Your task to perform on an android device: open the mobile data screen to see how much data has been used Image 0: 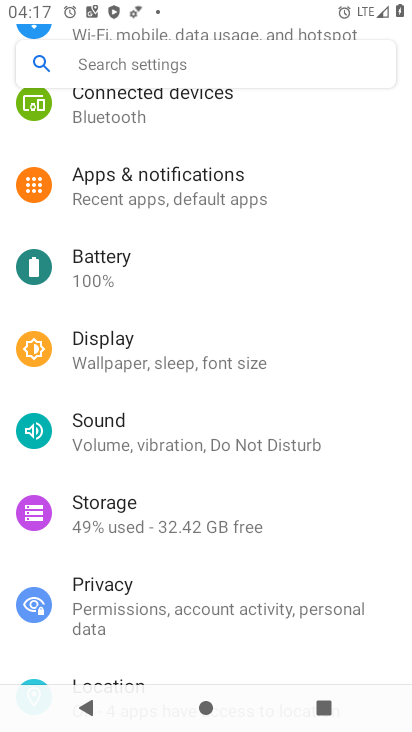
Step 0: press home button
Your task to perform on an android device: open the mobile data screen to see how much data has been used Image 1: 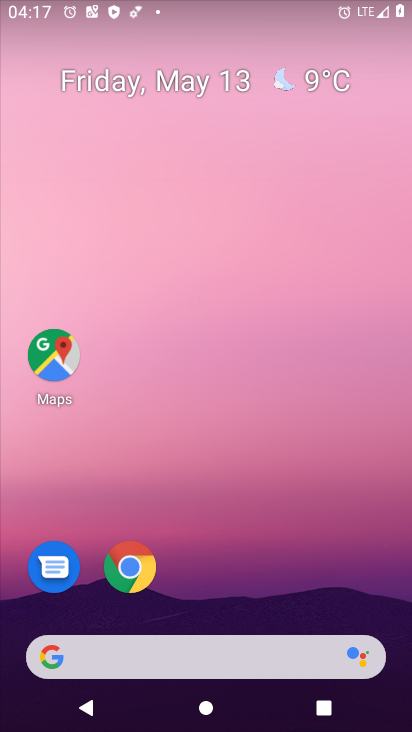
Step 1: drag from (317, 599) to (327, 22)
Your task to perform on an android device: open the mobile data screen to see how much data has been used Image 2: 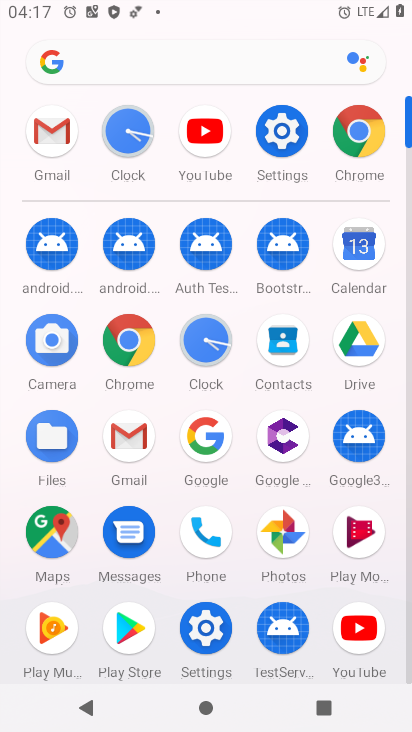
Step 2: click (272, 144)
Your task to perform on an android device: open the mobile data screen to see how much data has been used Image 3: 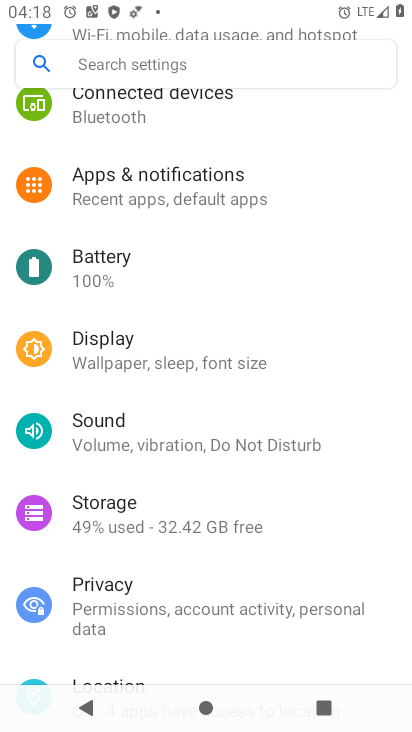
Step 3: drag from (309, 182) to (290, 536)
Your task to perform on an android device: open the mobile data screen to see how much data has been used Image 4: 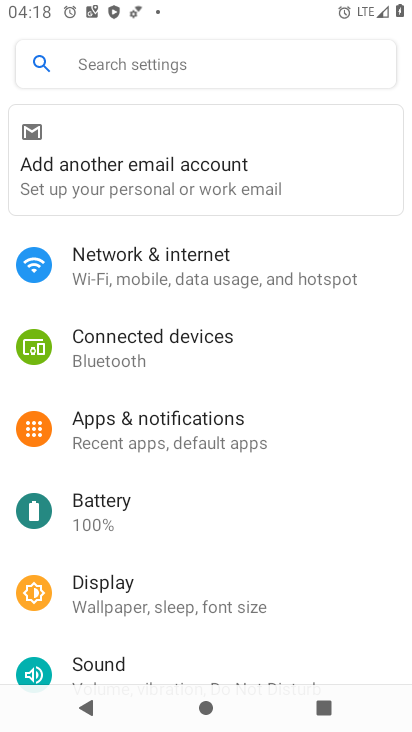
Step 4: click (193, 280)
Your task to perform on an android device: open the mobile data screen to see how much data has been used Image 5: 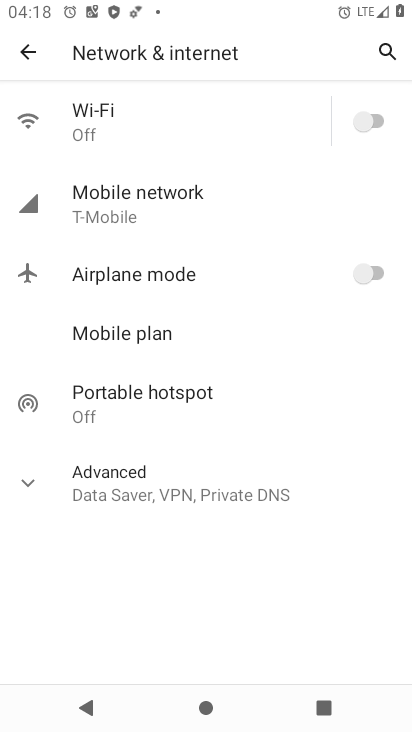
Step 5: click (116, 212)
Your task to perform on an android device: open the mobile data screen to see how much data has been used Image 6: 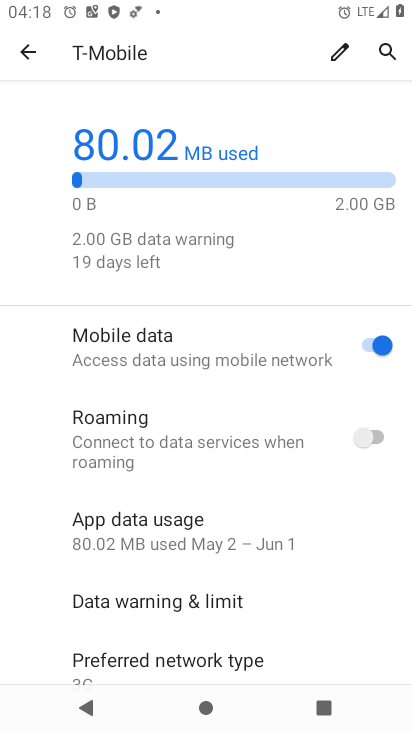
Step 6: click (148, 539)
Your task to perform on an android device: open the mobile data screen to see how much data has been used Image 7: 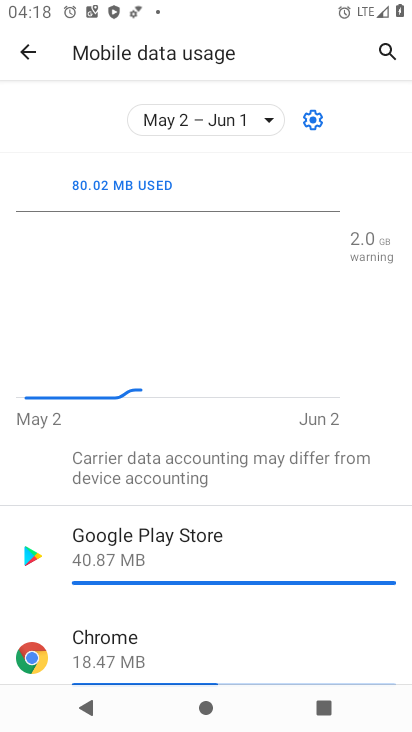
Step 7: task complete